Your task to perform on an android device: Open sound settings Image 0: 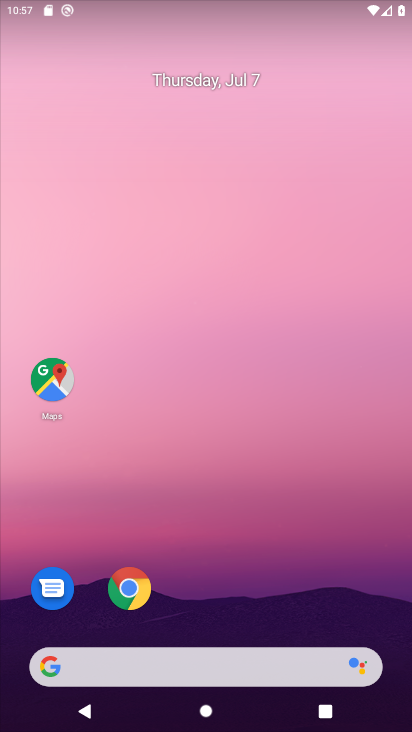
Step 0: drag from (175, 674) to (222, 190)
Your task to perform on an android device: Open sound settings Image 1: 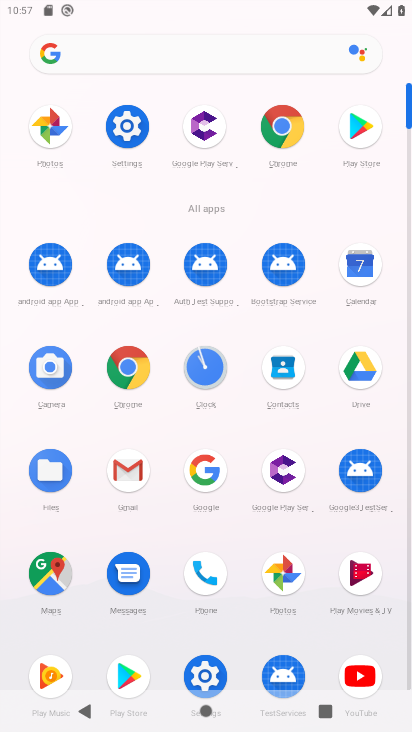
Step 1: click (124, 128)
Your task to perform on an android device: Open sound settings Image 2: 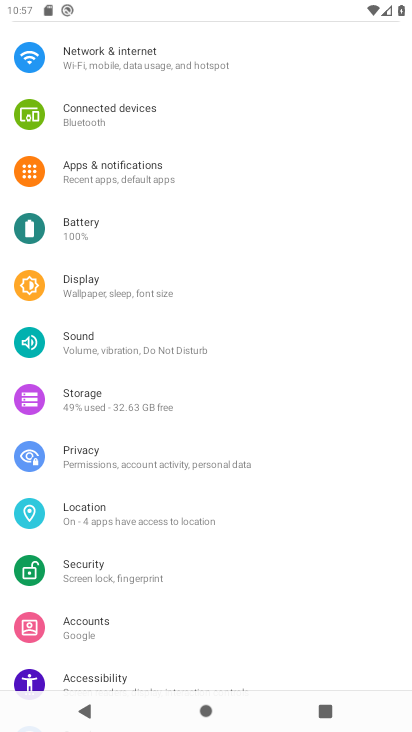
Step 2: click (102, 344)
Your task to perform on an android device: Open sound settings Image 3: 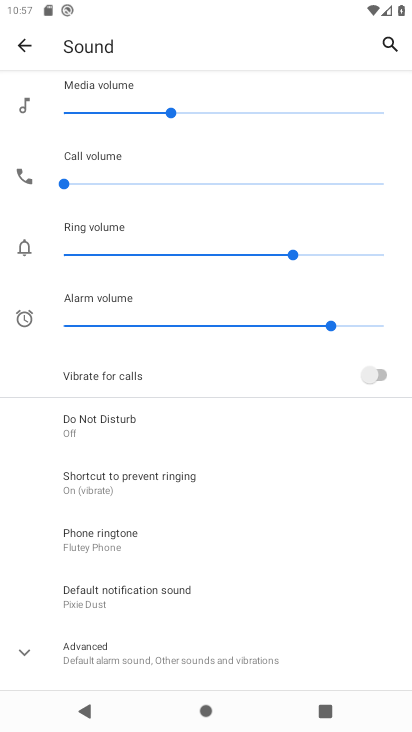
Step 3: task complete